Your task to perform on an android device: Toggle the flashlight Image 0: 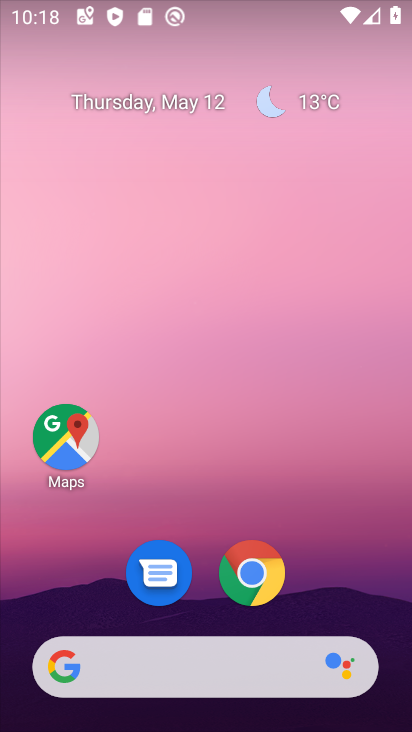
Step 0: drag from (220, 628) to (174, 37)
Your task to perform on an android device: Toggle the flashlight Image 1: 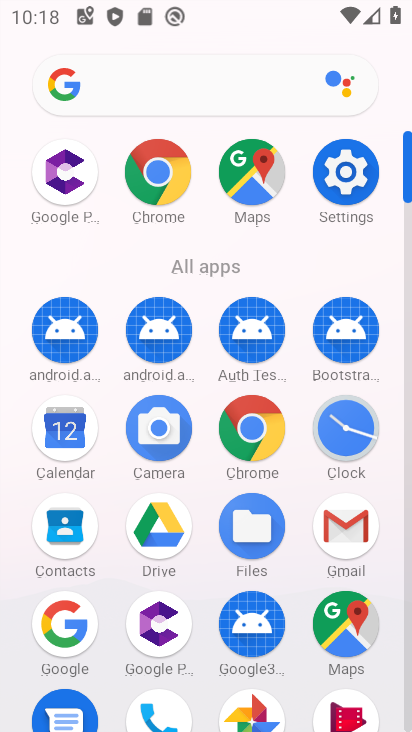
Step 1: click (335, 179)
Your task to perform on an android device: Toggle the flashlight Image 2: 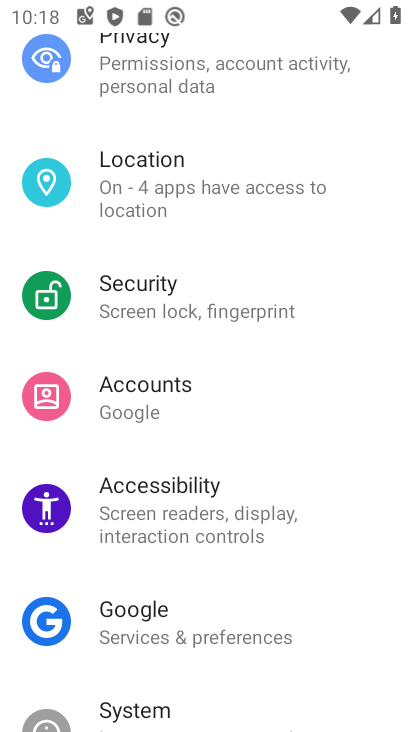
Step 2: drag from (151, 60) to (131, 701)
Your task to perform on an android device: Toggle the flashlight Image 3: 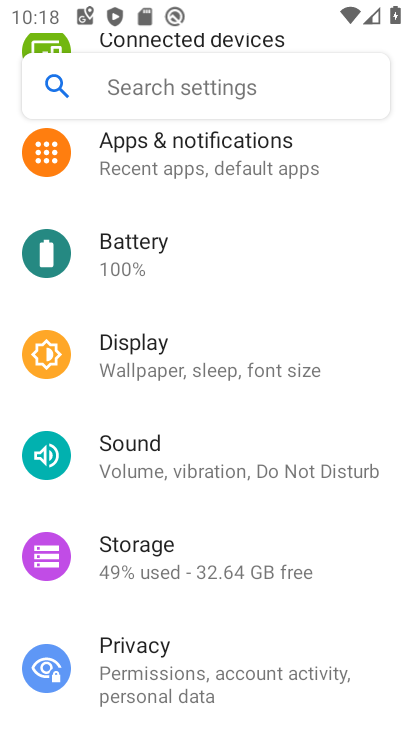
Step 3: click (138, 102)
Your task to perform on an android device: Toggle the flashlight Image 4: 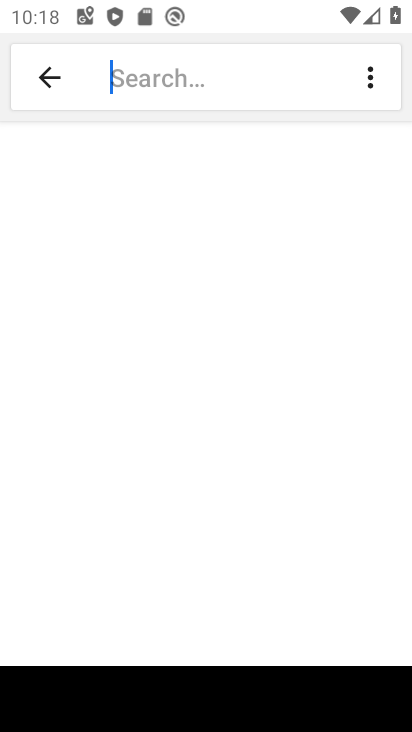
Step 4: type "flashlight"
Your task to perform on an android device: Toggle the flashlight Image 5: 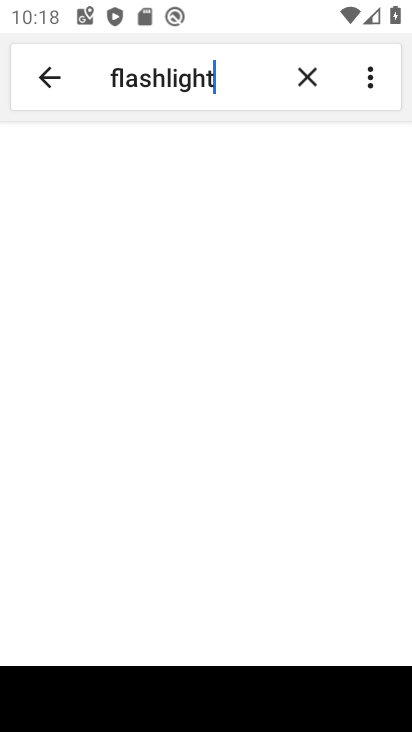
Step 5: task complete